Your task to perform on an android device: Do I have any events today? Image 0: 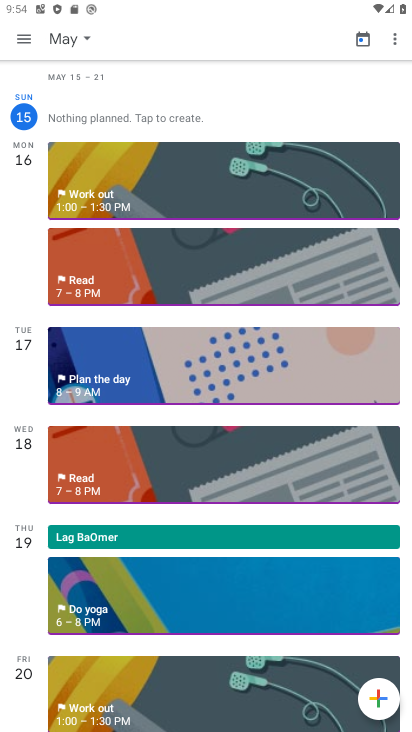
Step 0: drag from (142, 195) to (155, 632)
Your task to perform on an android device: Do I have any events today? Image 1: 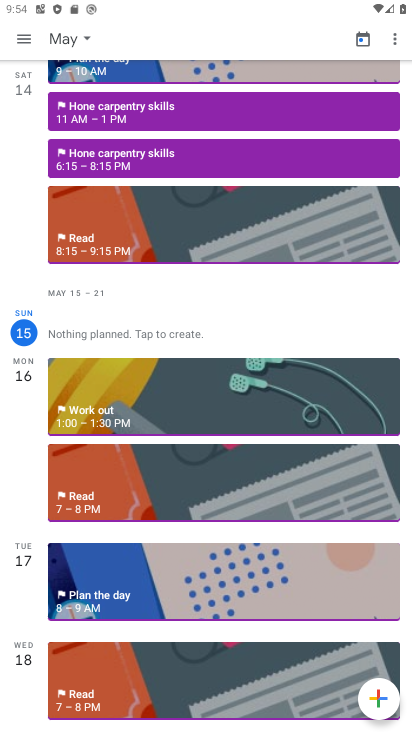
Step 1: click (158, 393)
Your task to perform on an android device: Do I have any events today? Image 2: 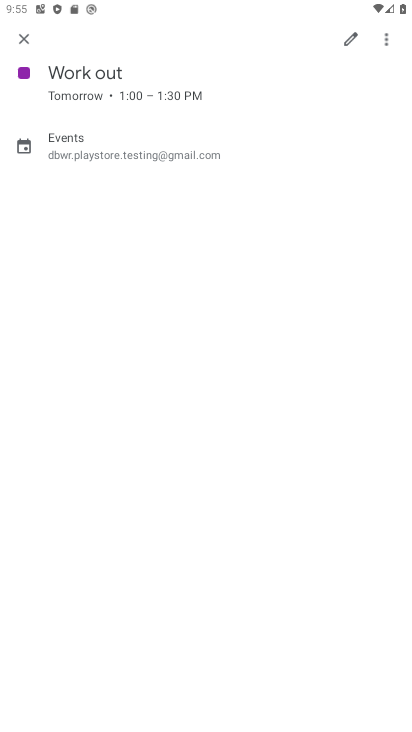
Step 2: task complete